Your task to perform on an android device: Clear the shopping cart on ebay. Search for razer nari on ebay, select the first entry, add it to the cart, then select checkout. Image 0: 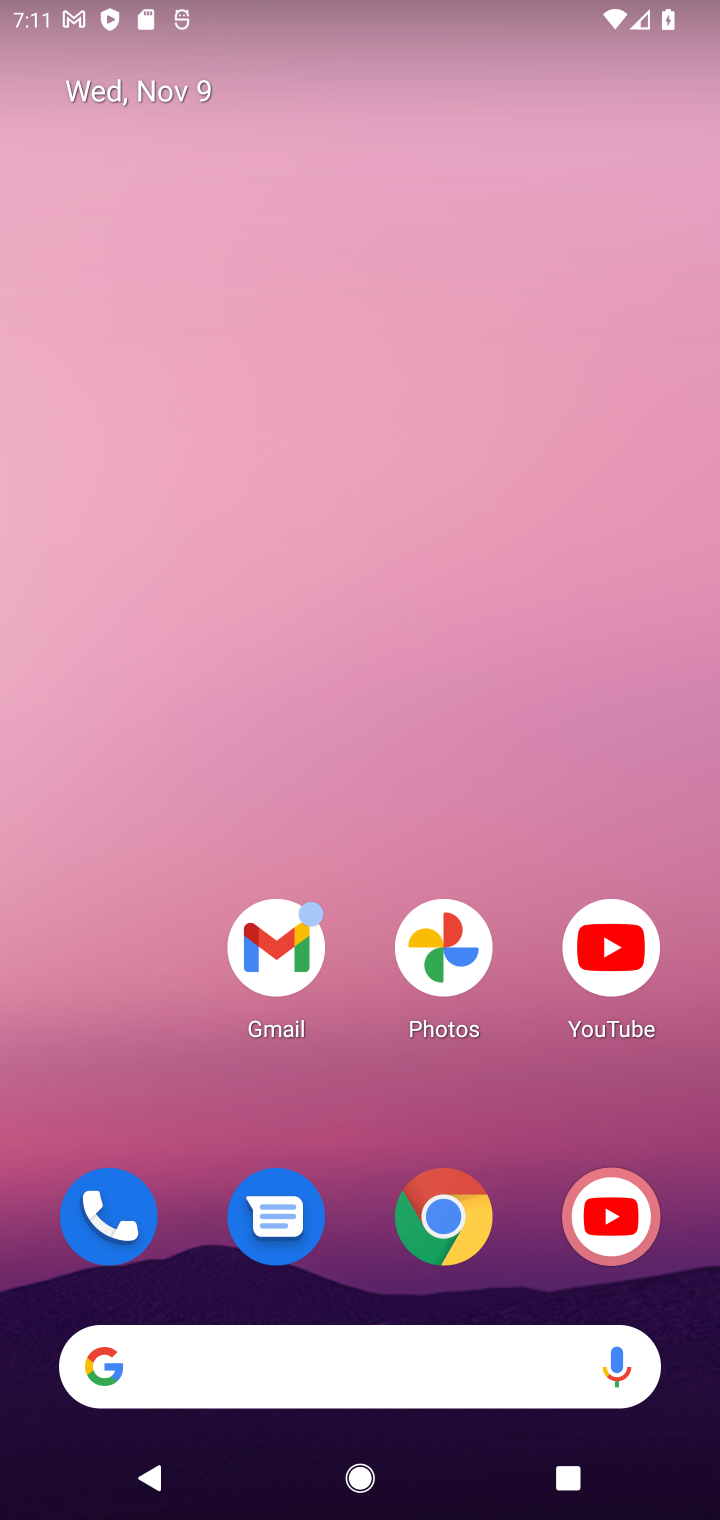
Step 0: press home button
Your task to perform on an android device: Clear the shopping cart on ebay. Search for razer nari on ebay, select the first entry, add it to the cart, then select checkout. Image 1: 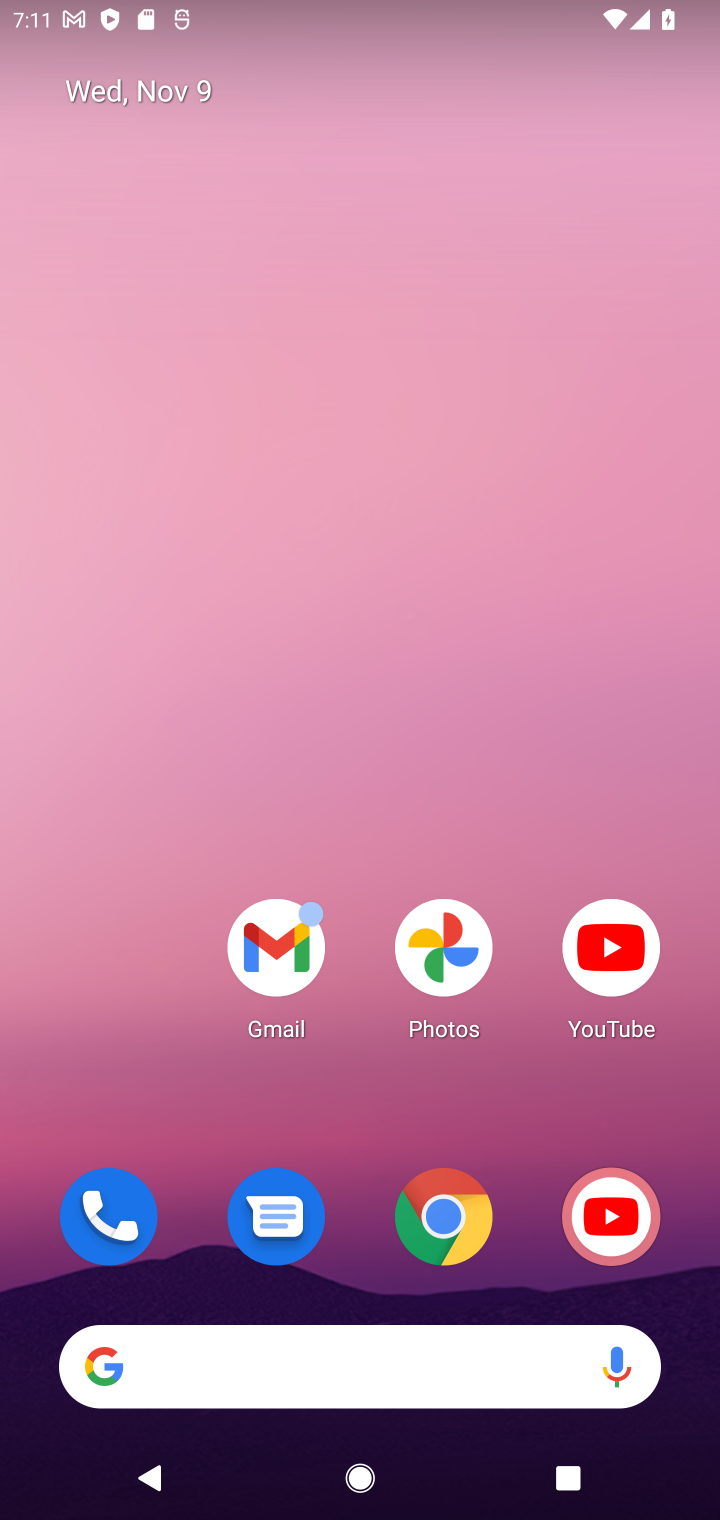
Step 1: drag from (366, 1114) to (412, 208)
Your task to perform on an android device: Clear the shopping cart on ebay. Search for razer nari on ebay, select the first entry, add it to the cart, then select checkout. Image 2: 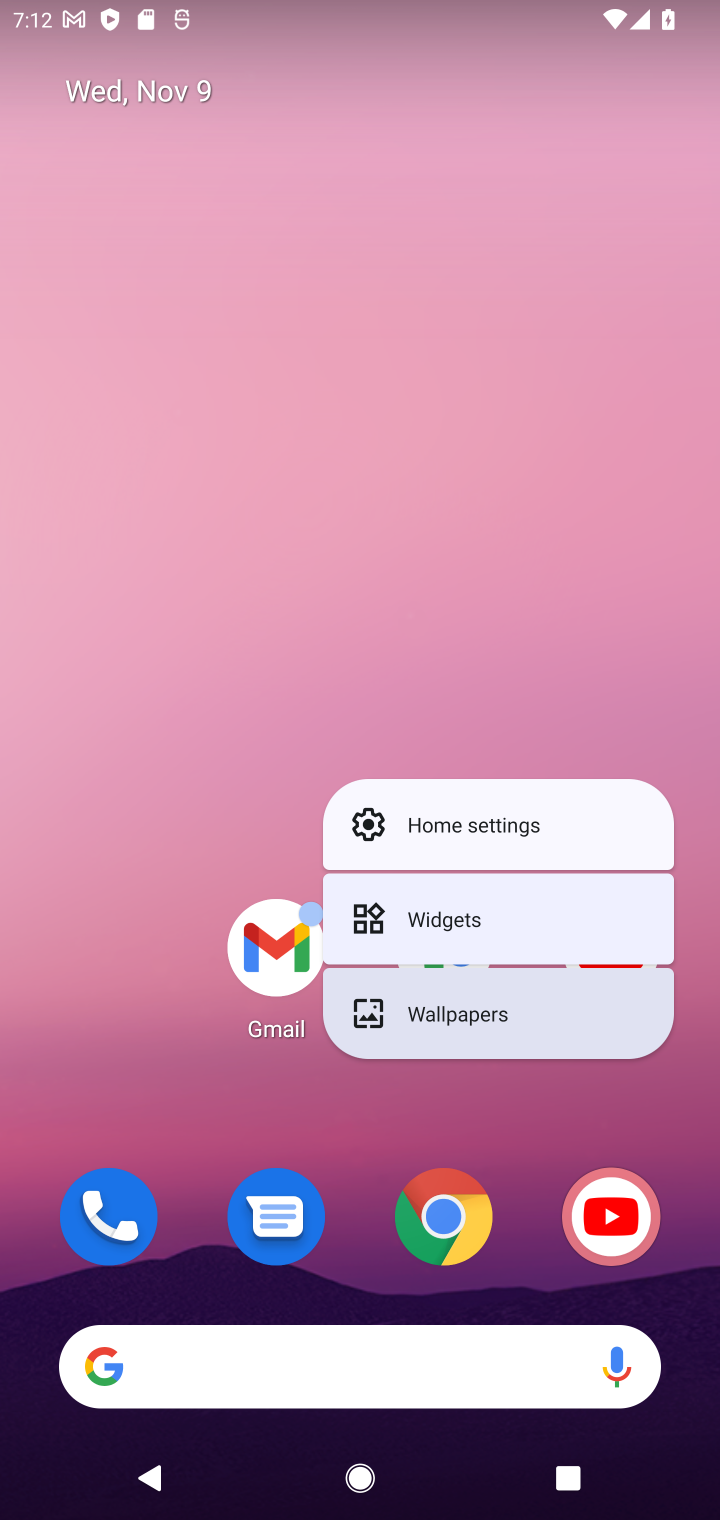
Step 2: click (163, 1046)
Your task to perform on an android device: Clear the shopping cart on ebay. Search for razer nari on ebay, select the first entry, add it to the cart, then select checkout. Image 3: 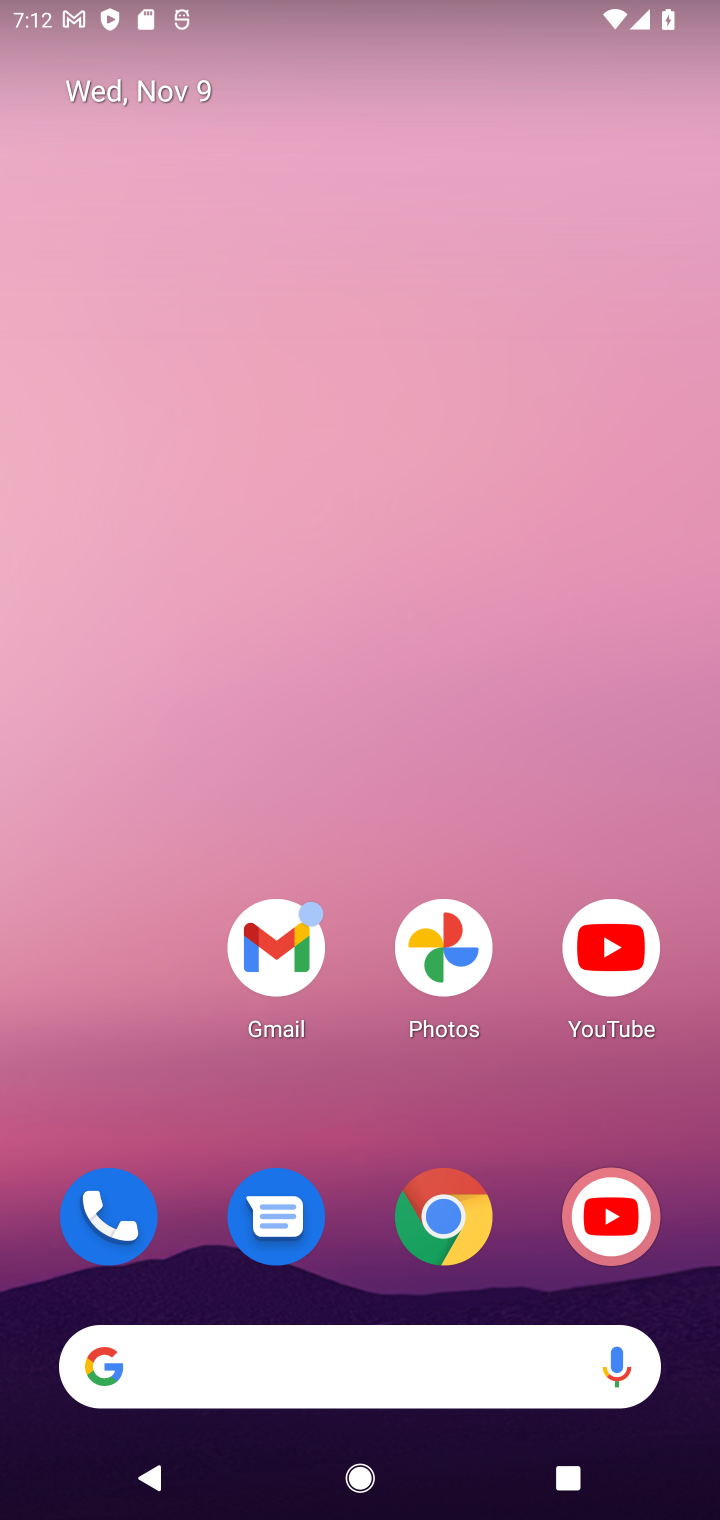
Step 3: drag from (318, 932) to (371, 108)
Your task to perform on an android device: Clear the shopping cart on ebay. Search for razer nari on ebay, select the first entry, add it to the cart, then select checkout. Image 4: 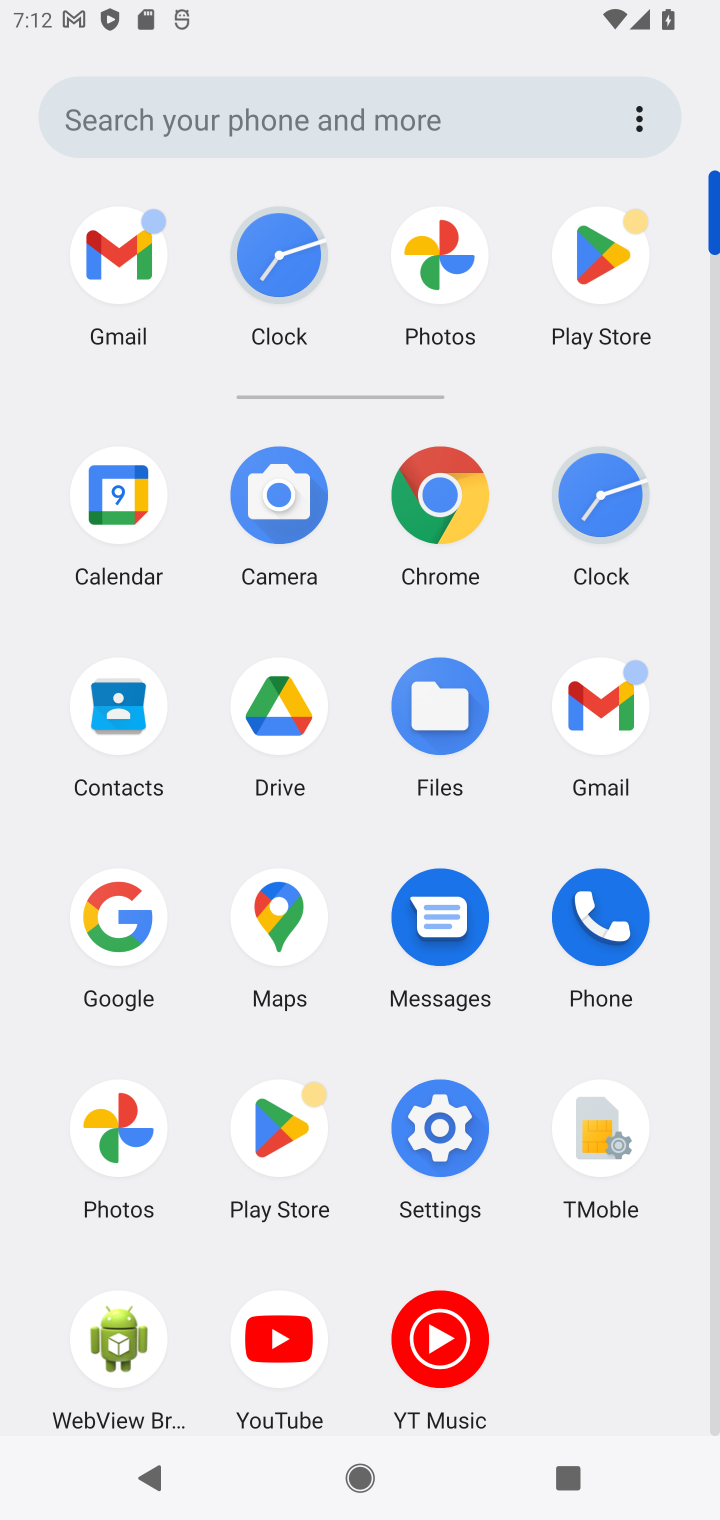
Step 4: click (437, 484)
Your task to perform on an android device: Clear the shopping cart on ebay. Search for razer nari on ebay, select the first entry, add it to the cart, then select checkout. Image 5: 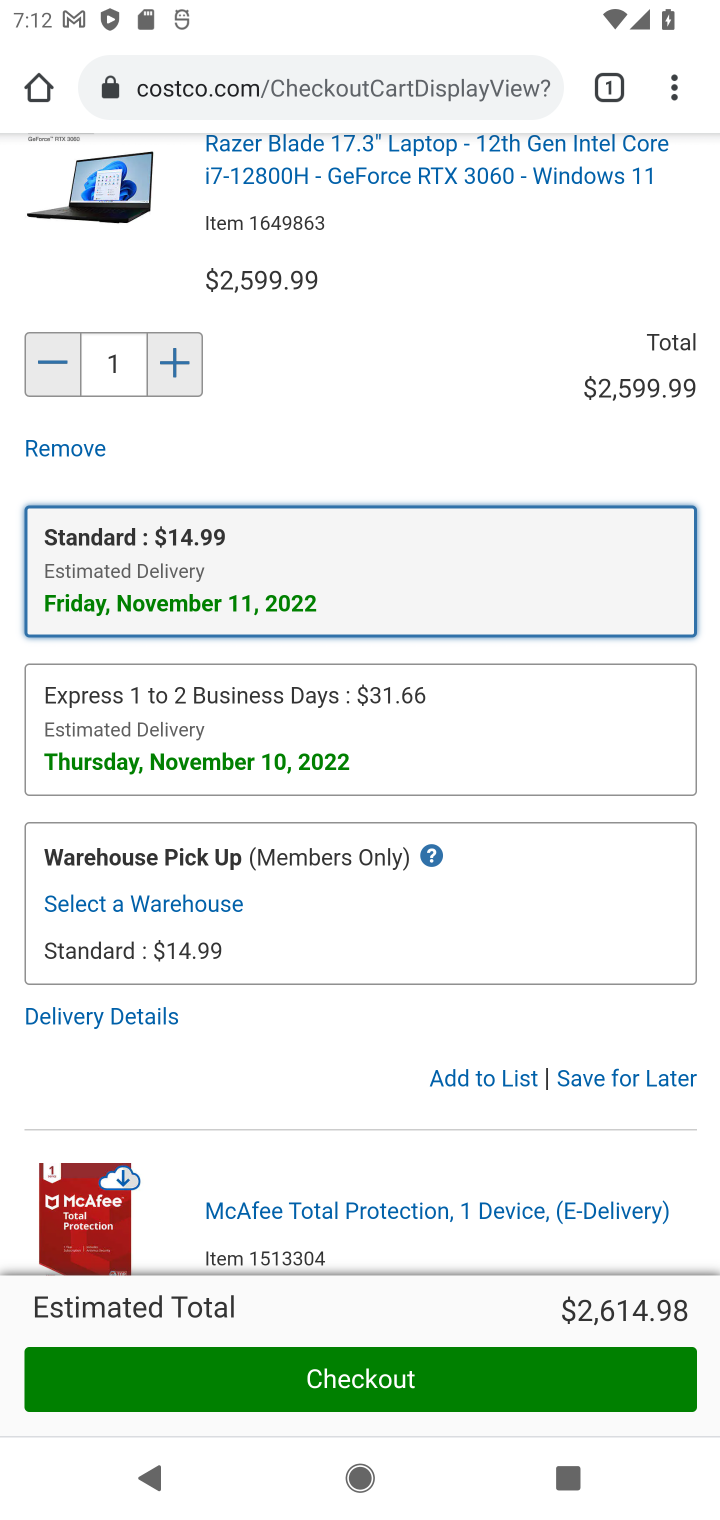
Step 5: click (358, 98)
Your task to perform on an android device: Clear the shopping cart on ebay. Search for razer nari on ebay, select the first entry, add it to the cart, then select checkout. Image 6: 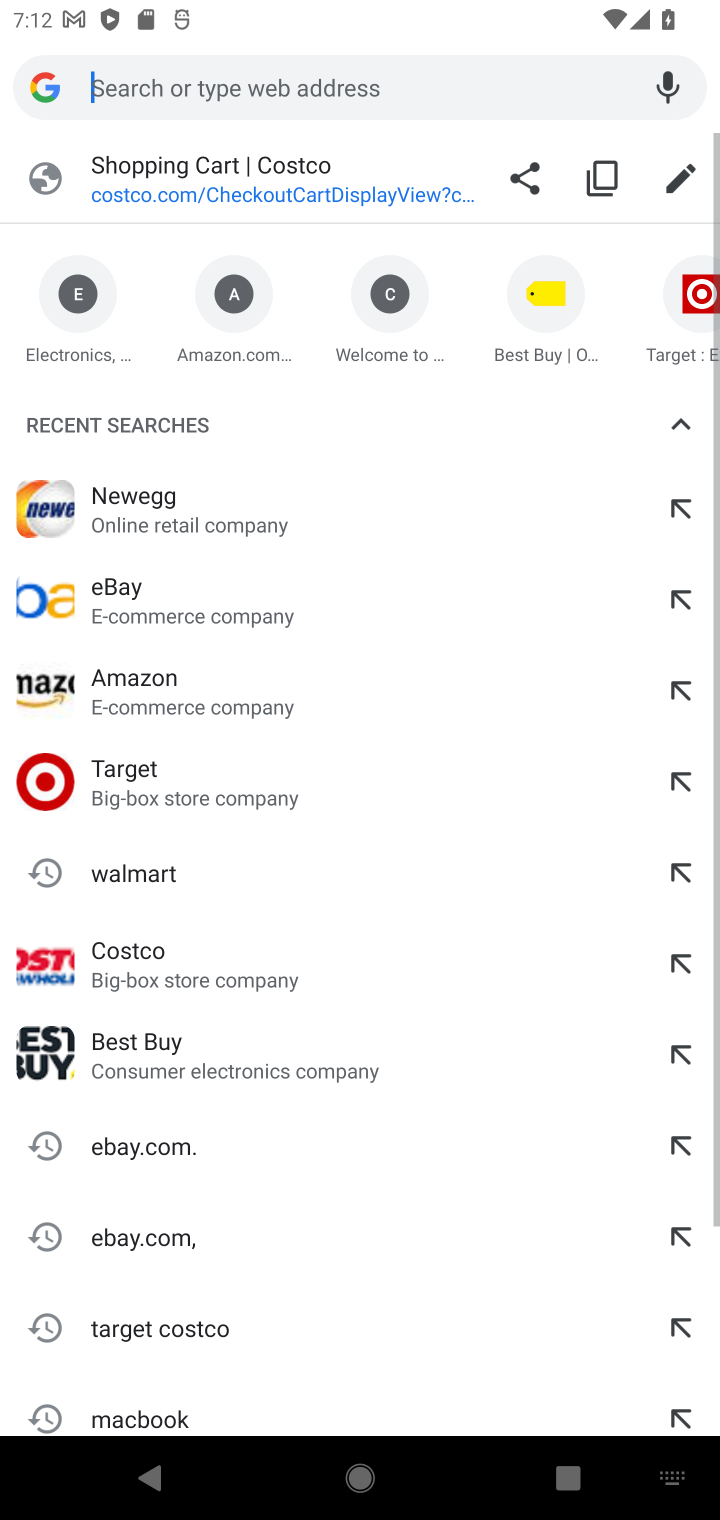
Step 6: type "ebay.com"
Your task to perform on an android device: Clear the shopping cart on ebay. Search for razer nari on ebay, select the first entry, add it to the cart, then select checkout. Image 7: 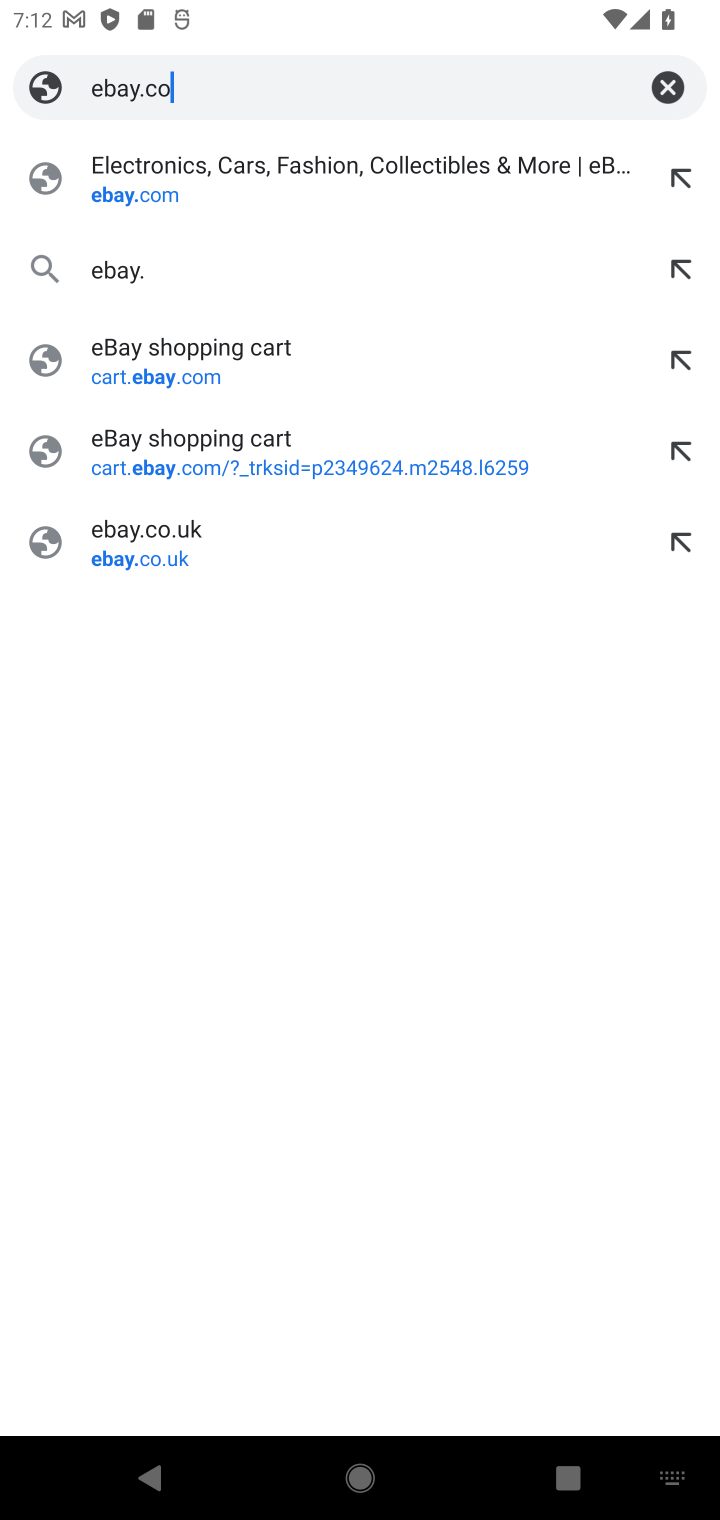
Step 7: press enter
Your task to perform on an android device: Clear the shopping cart on ebay. Search for razer nari on ebay, select the first entry, add it to the cart, then select checkout. Image 8: 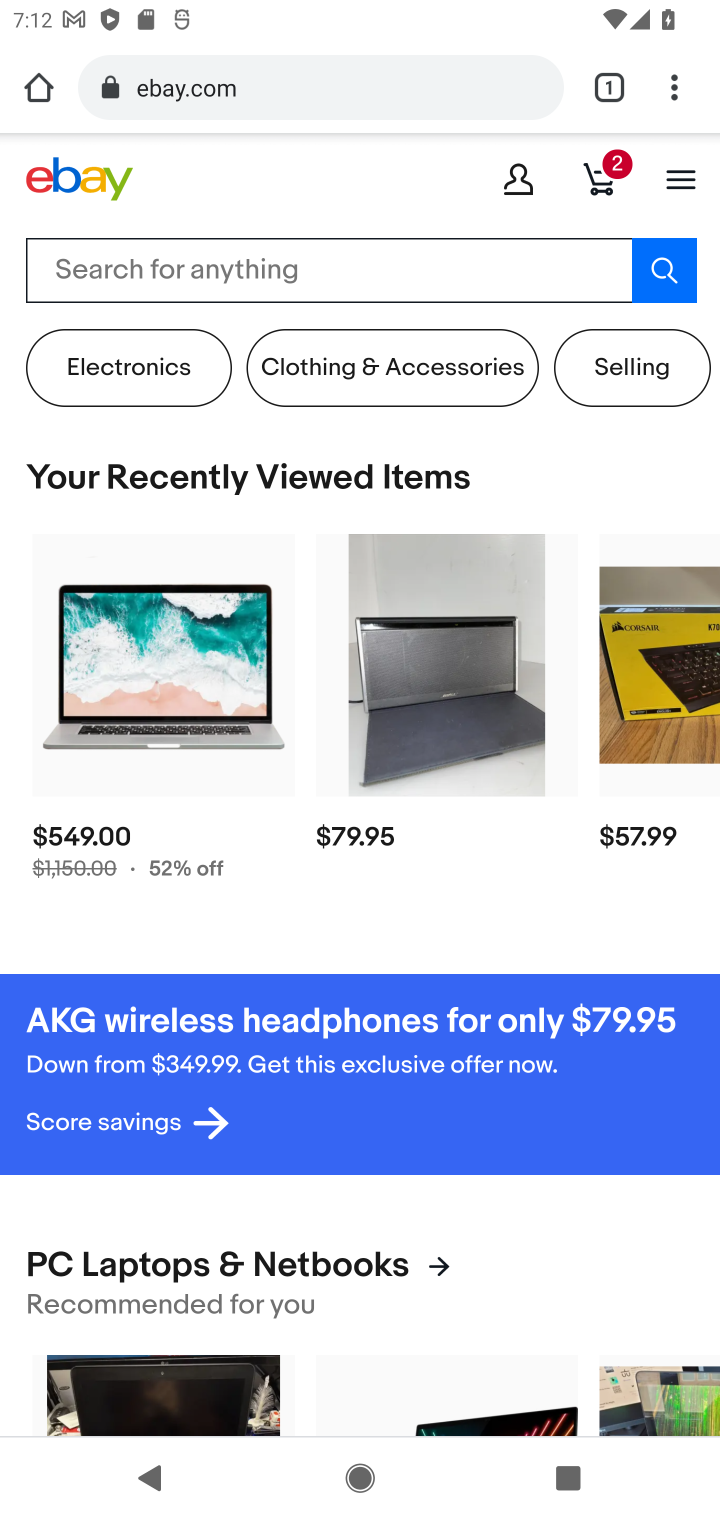
Step 8: click (602, 170)
Your task to perform on an android device: Clear the shopping cart on ebay. Search for razer nari on ebay, select the first entry, add it to the cart, then select checkout. Image 9: 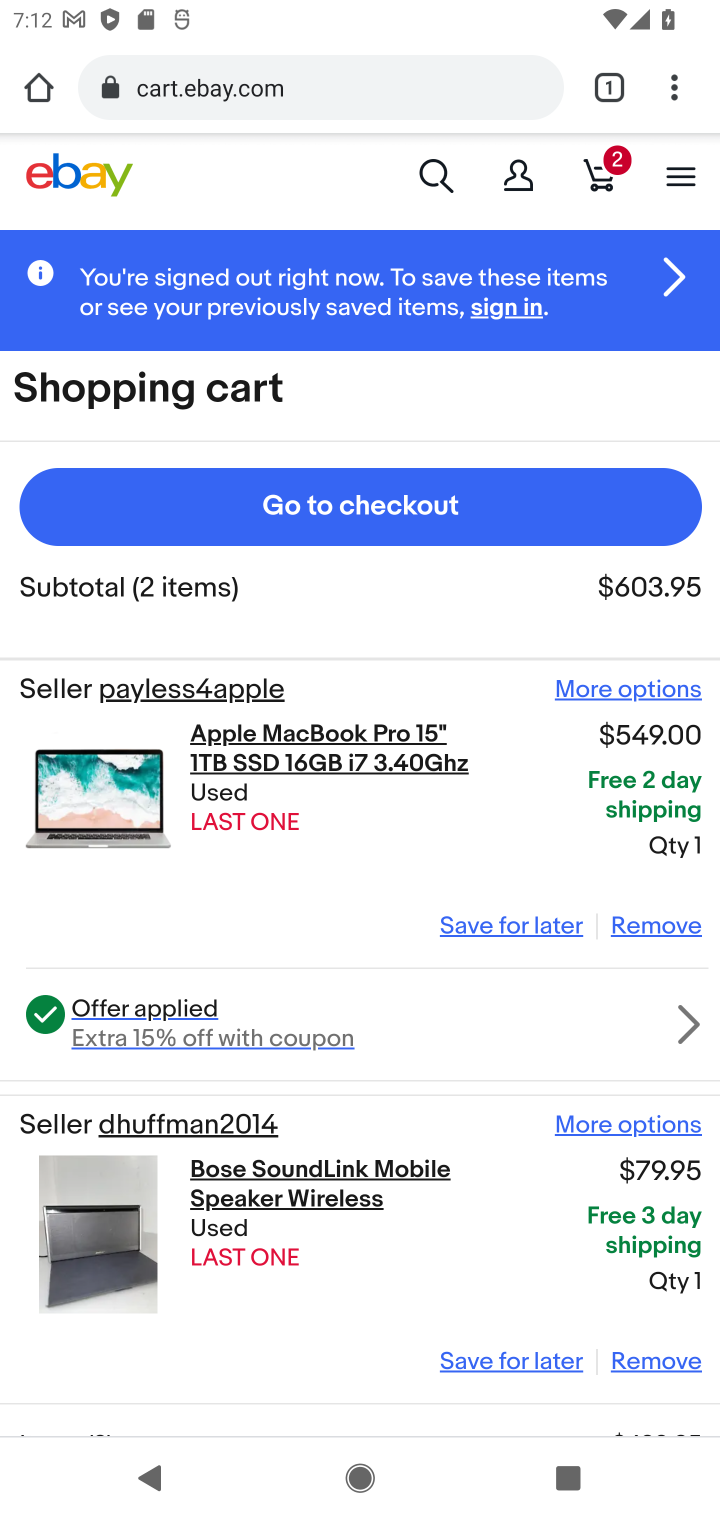
Step 9: click (651, 929)
Your task to perform on an android device: Clear the shopping cart on ebay. Search for razer nari on ebay, select the first entry, add it to the cart, then select checkout. Image 10: 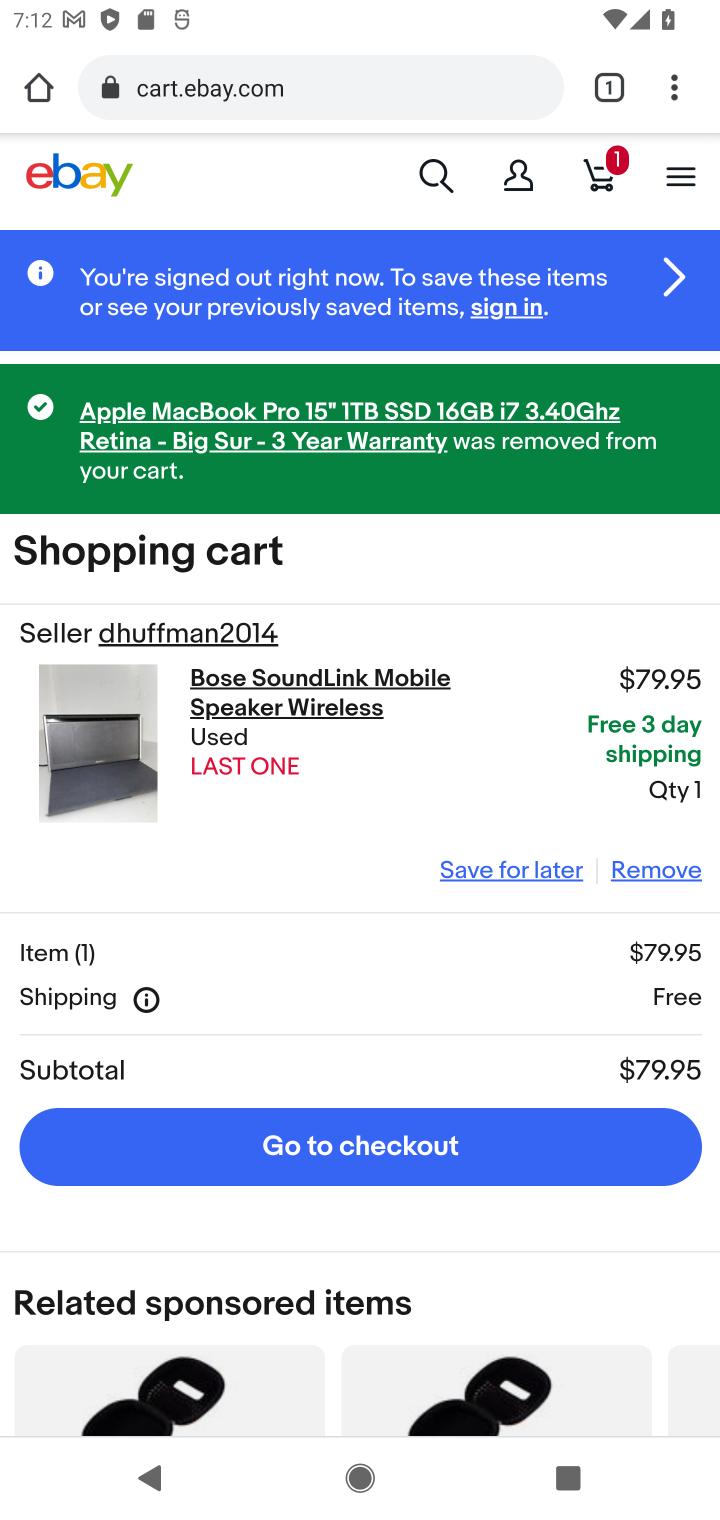
Step 10: click (662, 870)
Your task to perform on an android device: Clear the shopping cart on ebay. Search for razer nari on ebay, select the first entry, add it to the cart, then select checkout. Image 11: 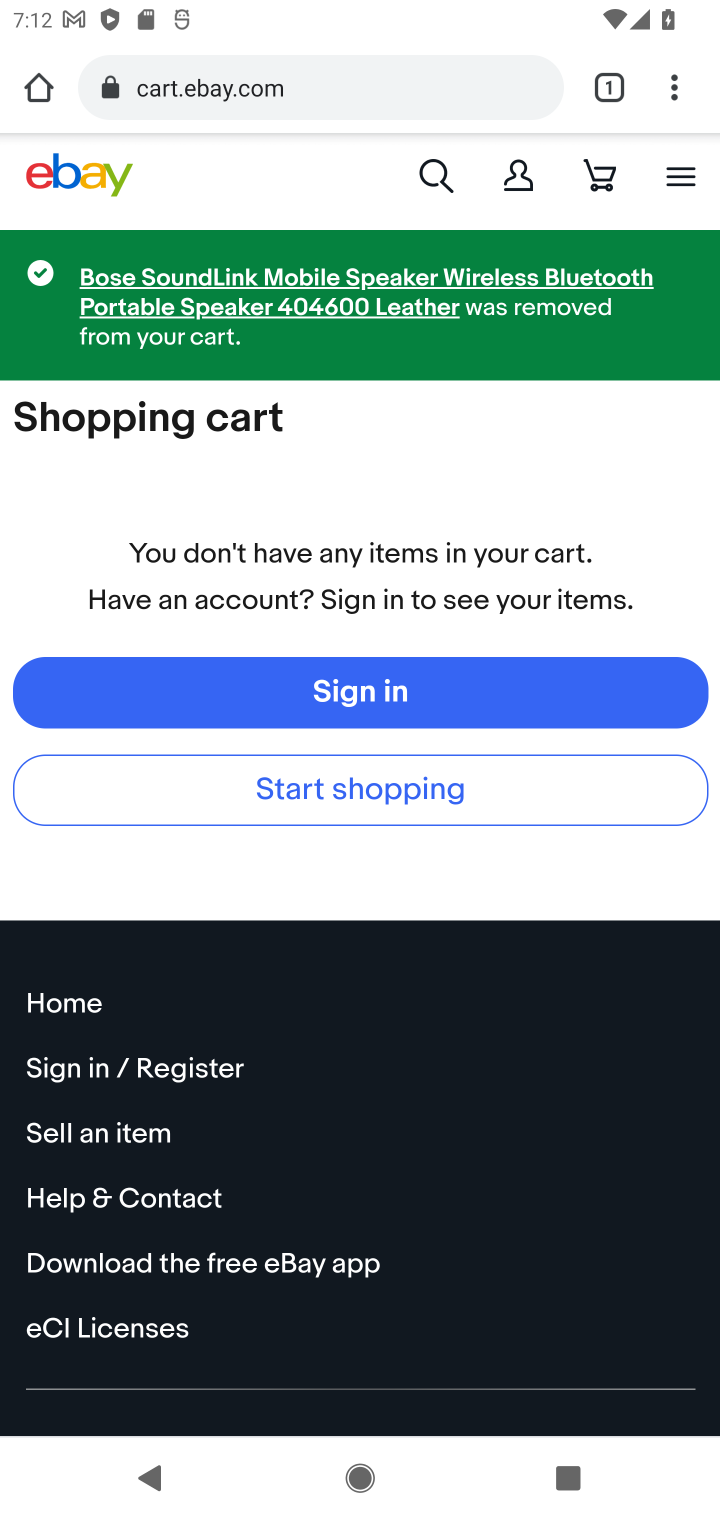
Step 11: click (414, 201)
Your task to perform on an android device: Clear the shopping cart on ebay. Search for razer nari on ebay, select the first entry, add it to the cart, then select checkout. Image 12: 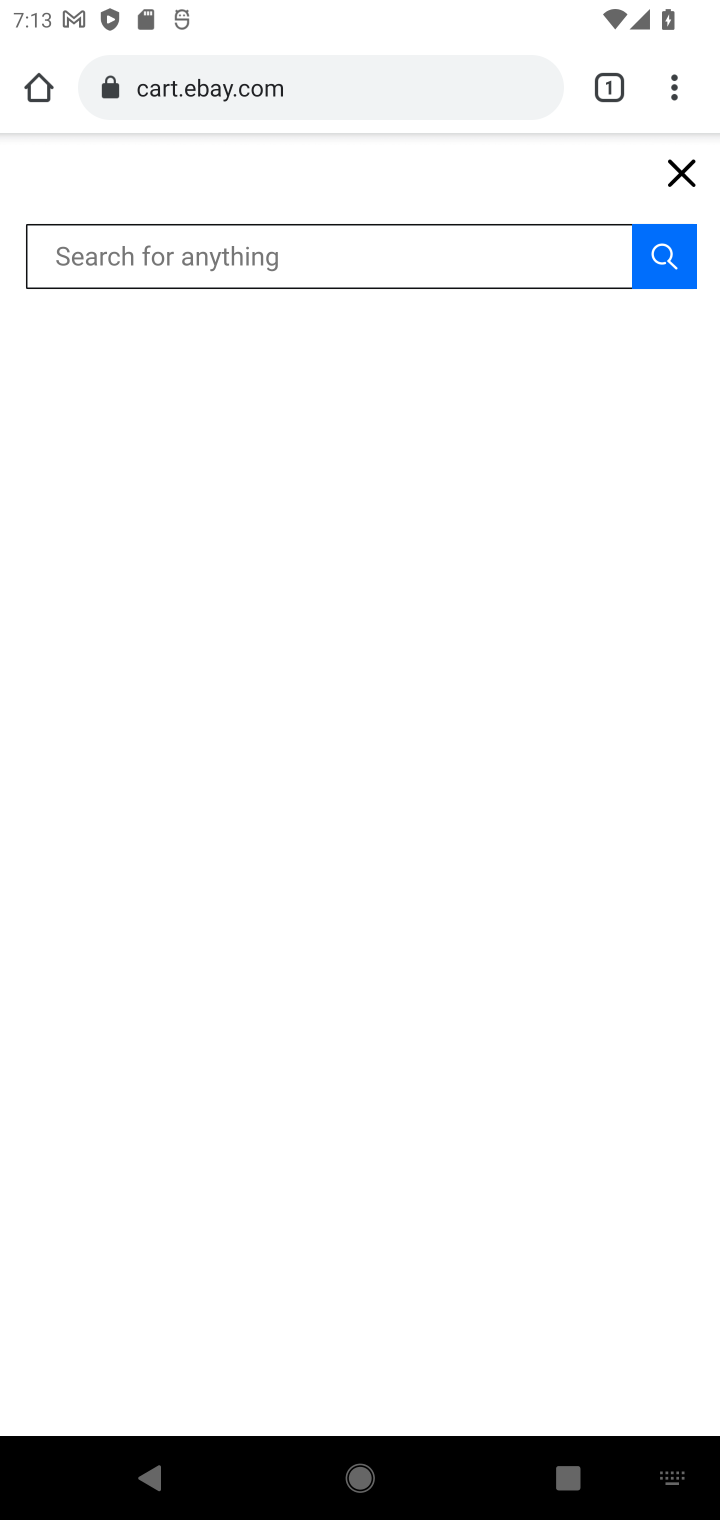
Step 12: type "razer nari"
Your task to perform on an android device: Clear the shopping cart on ebay. Search for razer nari on ebay, select the first entry, add it to the cart, then select checkout. Image 13: 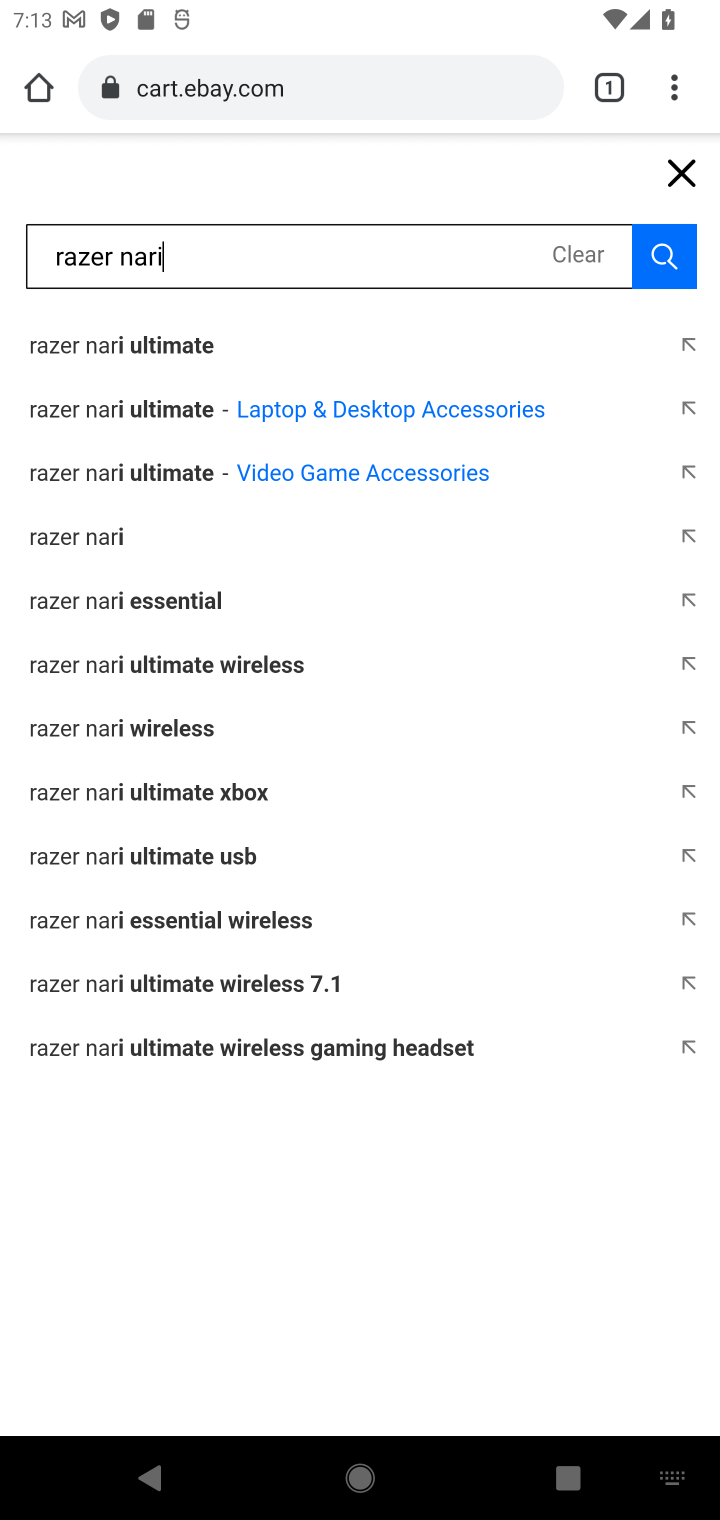
Step 13: press enter
Your task to perform on an android device: Clear the shopping cart on ebay. Search for razer nari on ebay, select the first entry, add it to the cart, then select checkout. Image 14: 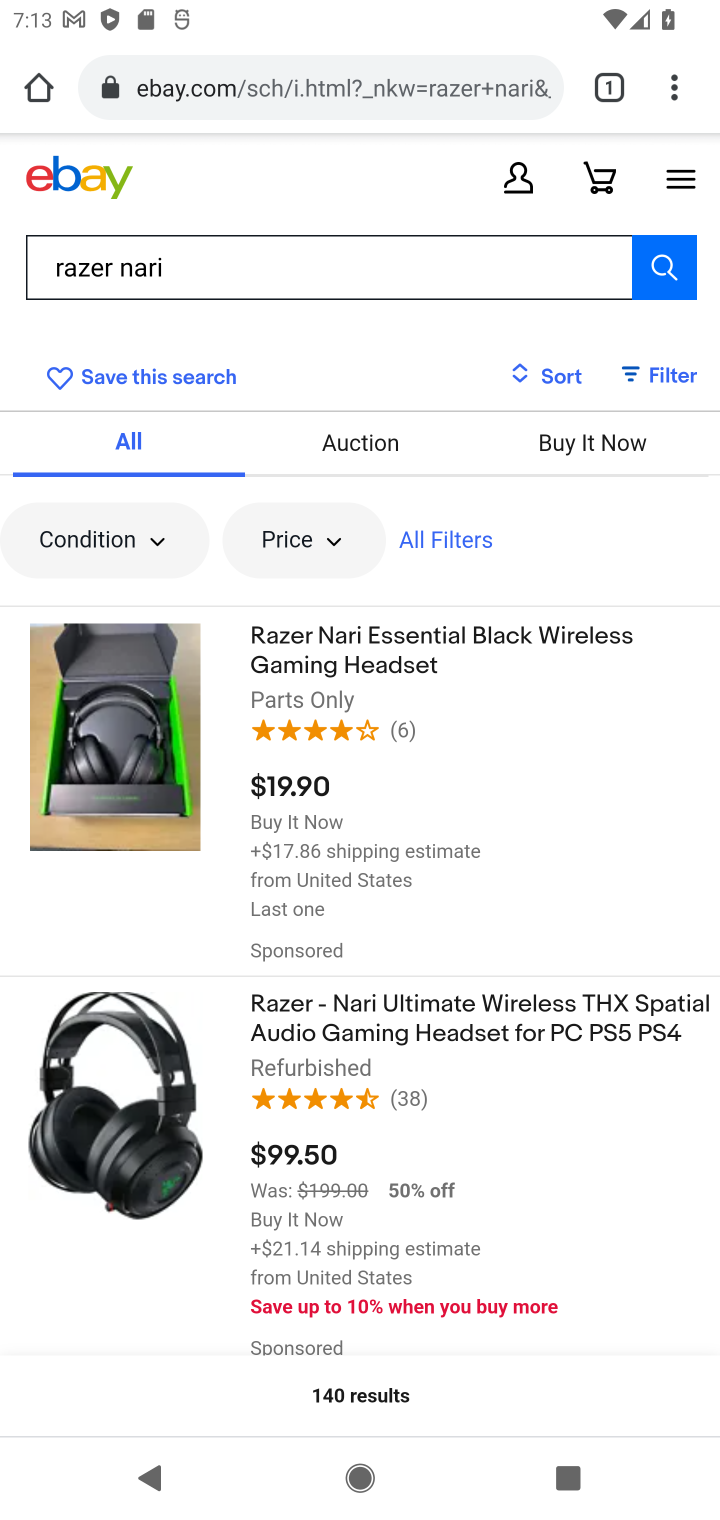
Step 14: click (113, 737)
Your task to perform on an android device: Clear the shopping cart on ebay. Search for razer nari on ebay, select the first entry, add it to the cart, then select checkout. Image 15: 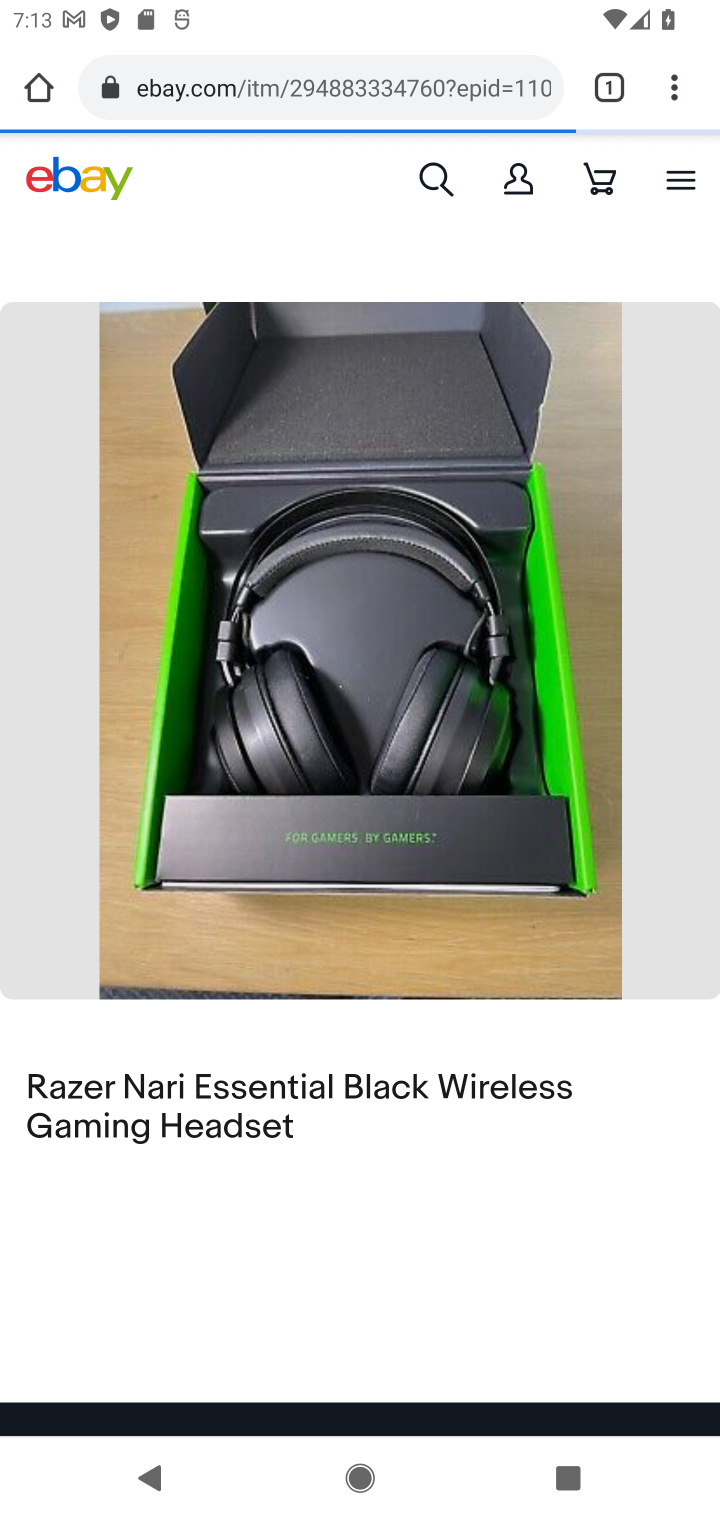
Step 15: drag from (451, 1287) to (590, 206)
Your task to perform on an android device: Clear the shopping cart on ebay. Search for razer nari on ebay, select the first entry, add it to the cart, then select checkout. Image 16: 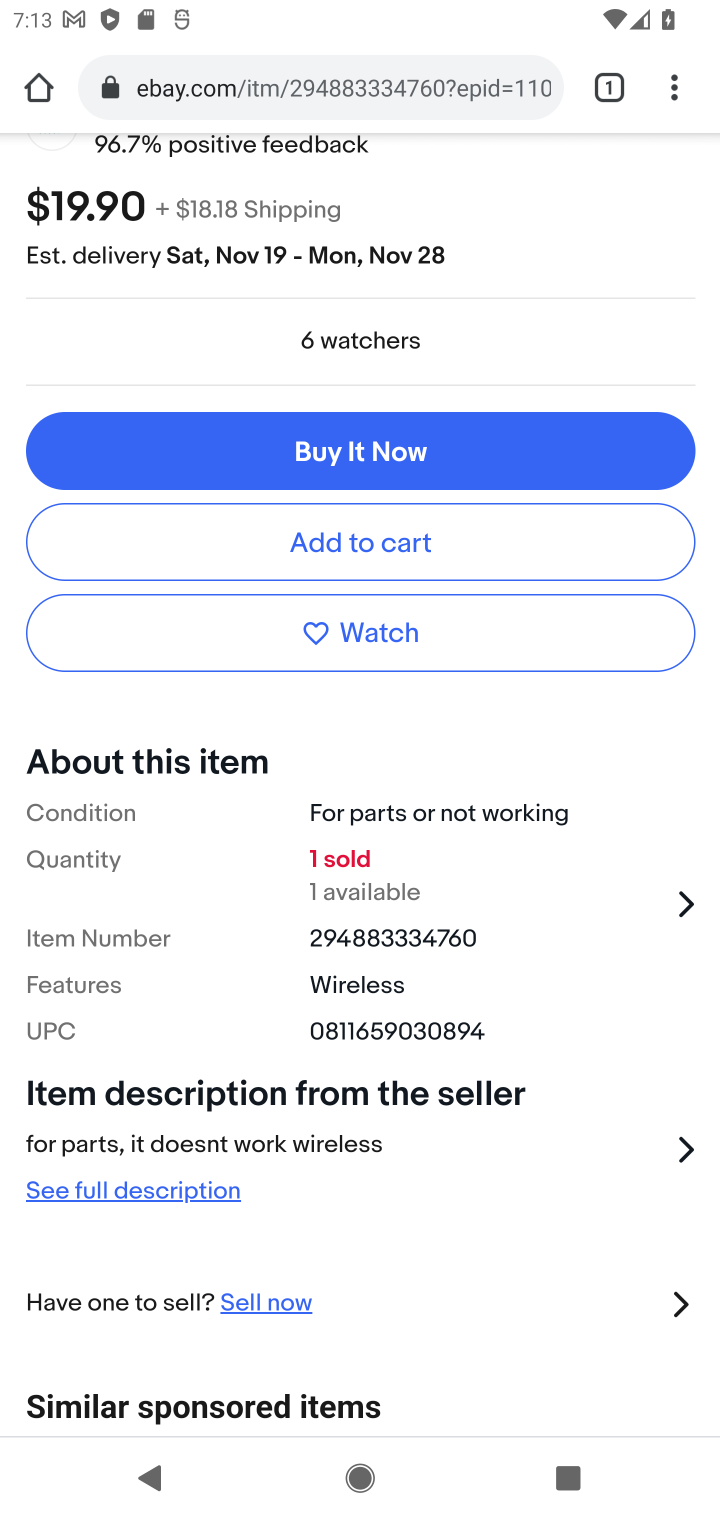
Step 16: click (460, 516)
Your task to perform on an android device: Clear the shopping cart on ebay. Search for razer nari on ebay, select the first entry, add it to the cart, then select checkout. Image 17: 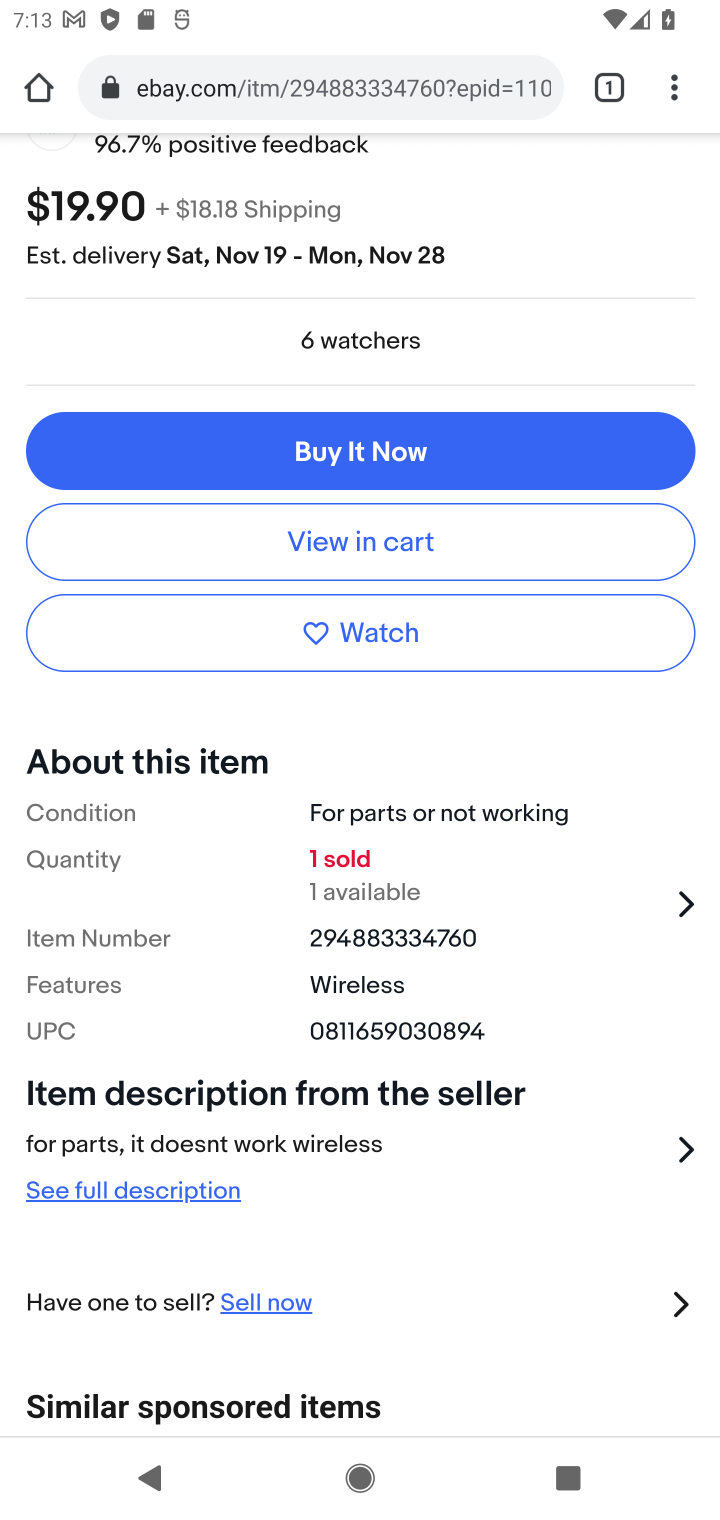
Step 17: click (551, 529)
Your task to perform on an android device: Clear the shopping cart on ebay. Search for razer nari on ebay, select the first entry, add it to the cart, then select checkout. Image 18: 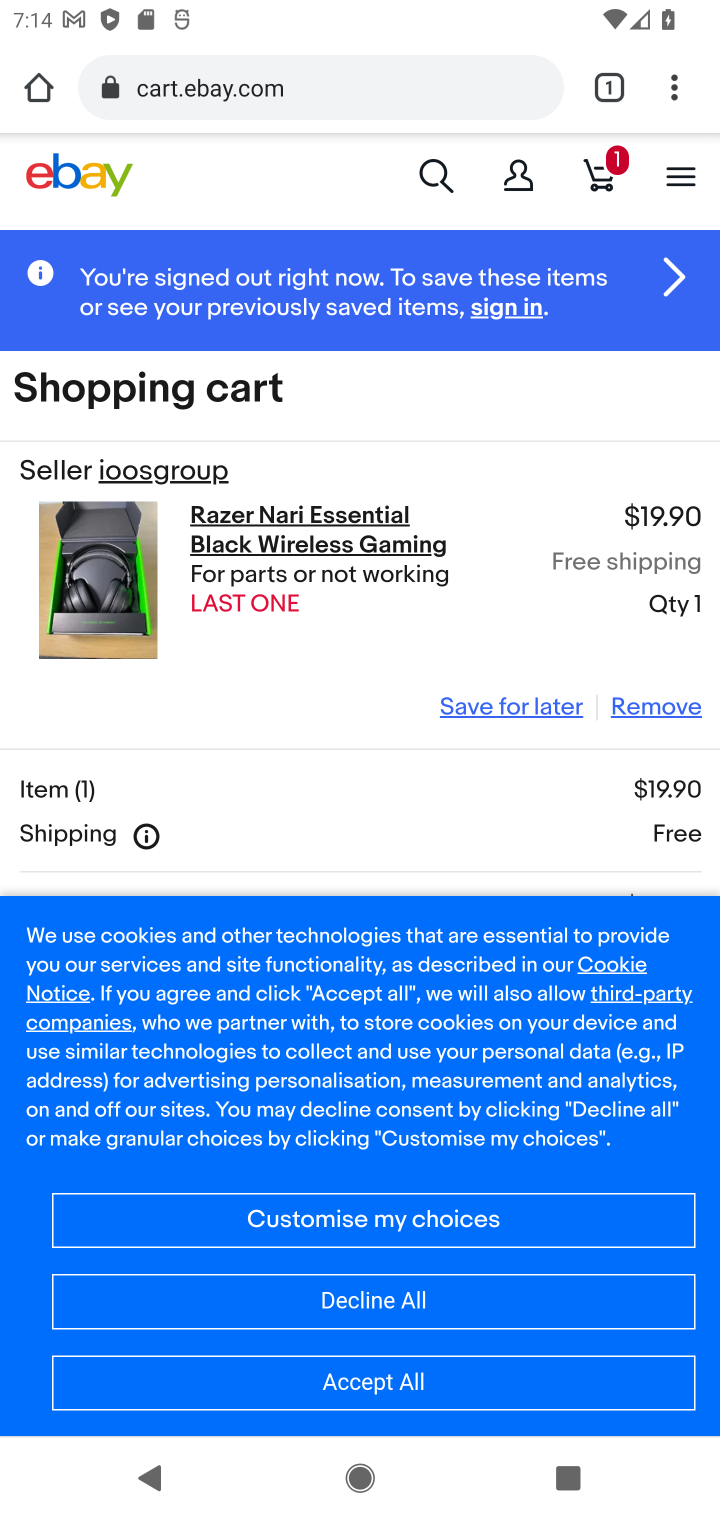
Step 18: task complete